Your task to perform on an android device: Open calendar and show me the second week of next month Image 0: 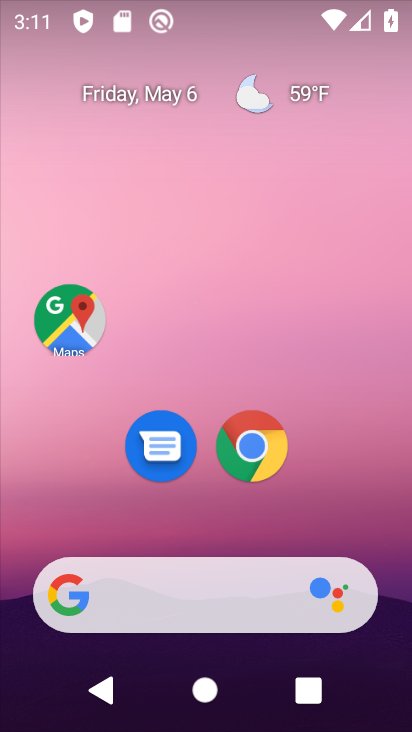
Step 0: drag from (293, 512) to (302, 112)
Your task to perform on an android device: Open calendar and show me the second week of next month Image 1: 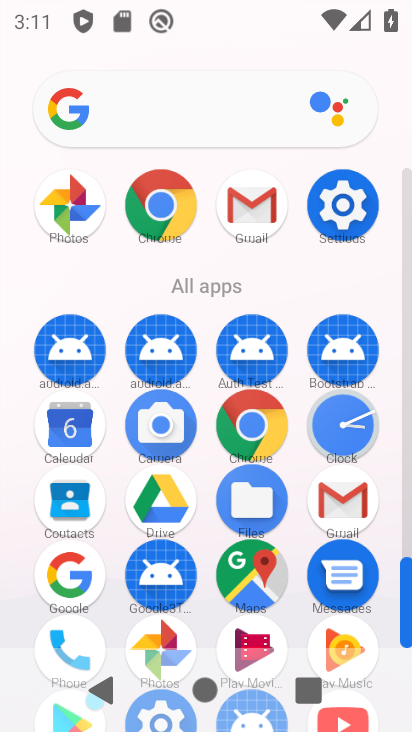
Step 1: click (74, 440)
Your task to perform on an android device: Open calendar and show me the second week of next month Image 2: 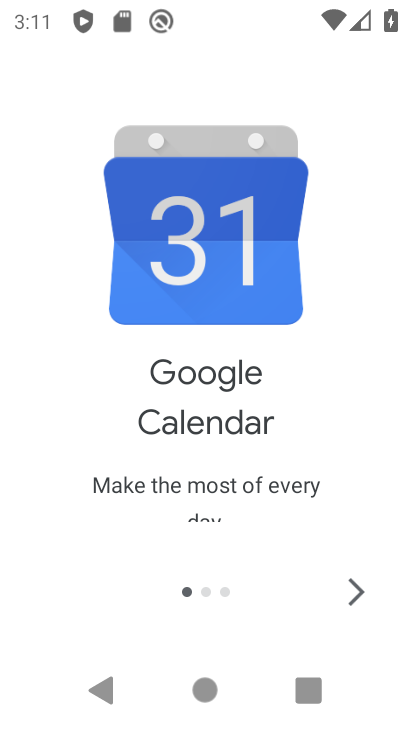
Step 2: click (346, 598)
Your task to perform on an android device: Open calendar and show me the second week of next month Image 3: 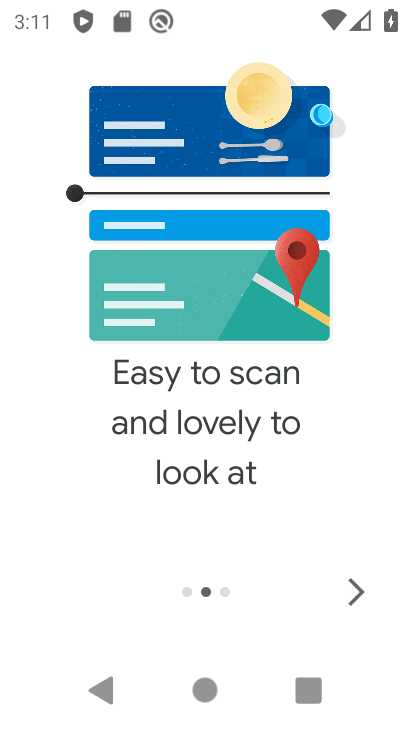
Step 3: click (346, 598)
Your task to perform on an android device: Open calendar and show me the second week of next month Image 4: 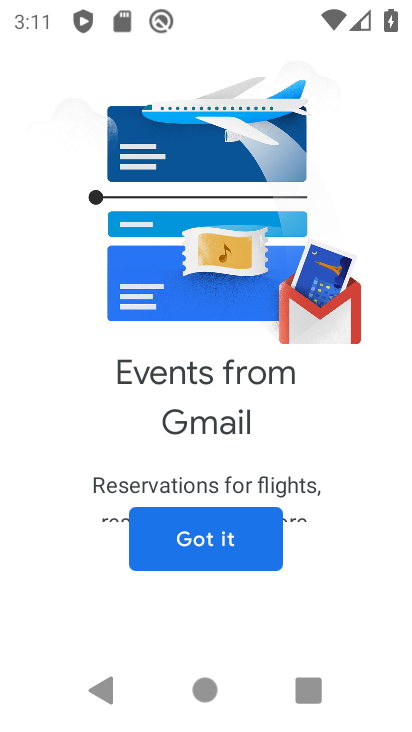
Step 4: click (244, 547)
Your task to perform on an android device: Open calendar and show me the second week of next month Image 5: 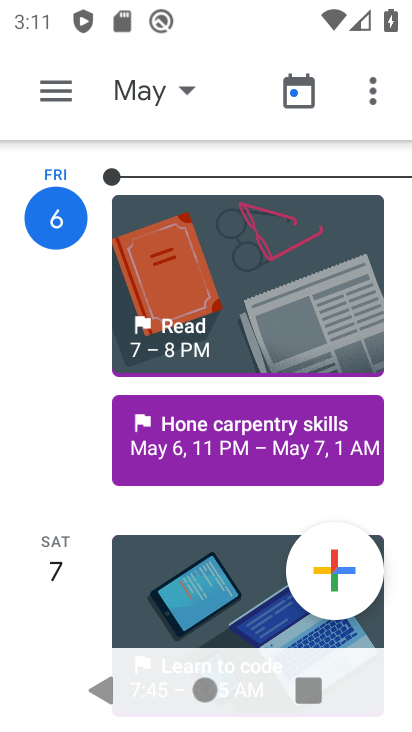
Step 5: click (136, 93)
Your task to perform on an android device: Open calendar and show me the second week of next month Image 6: 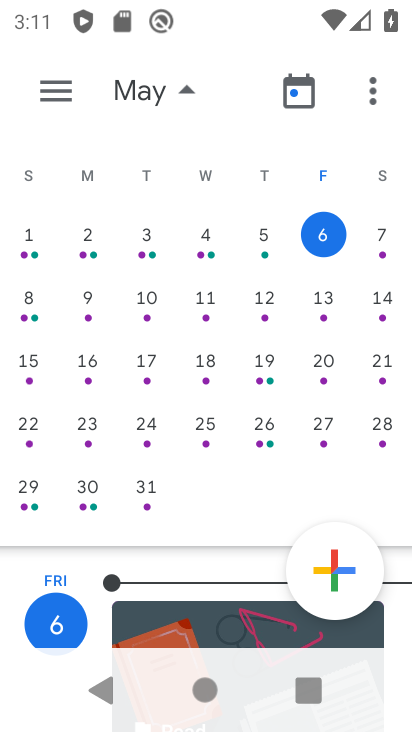
Step 6: drag from (352, 325) to (1, 335)
Your task to perform on an android device: Open calendar and show me the second week of next month Image 7: 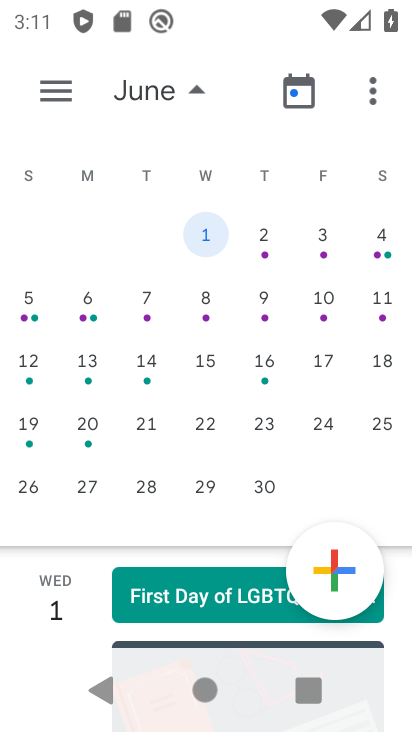
Step 7: click (30, 313)
Your task to perform on an android device: Open calendar and show me the second week of next month Image 8: 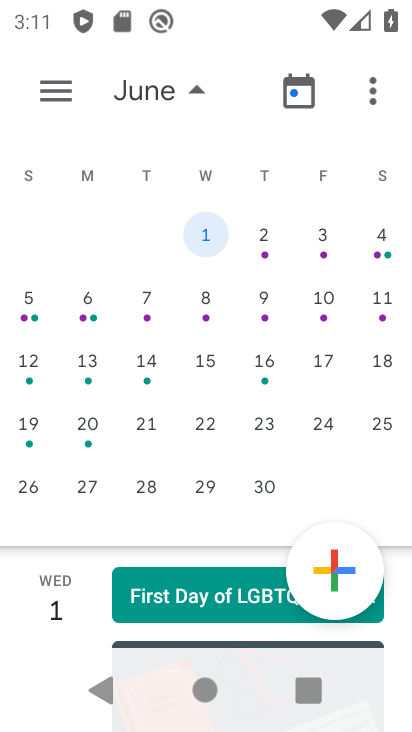
Step 8: click (35, 318)
Your task to perform on an android device: Open calendar and show me the second week of next month Image 9: 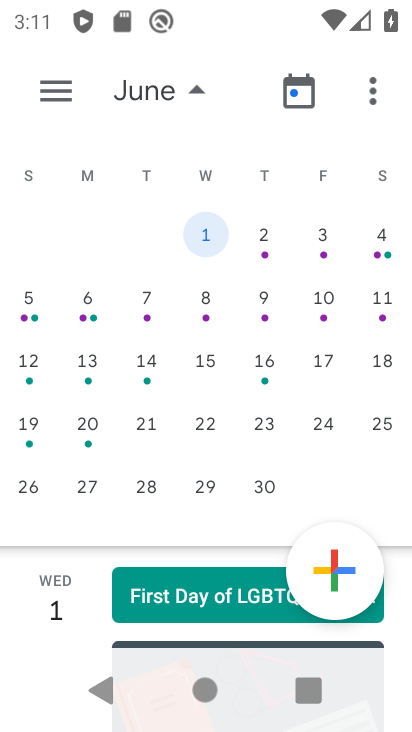
Step 9: click (78, 319)
Your task to perform on an android device: Open calendar and show me the second week of next month Image 10: 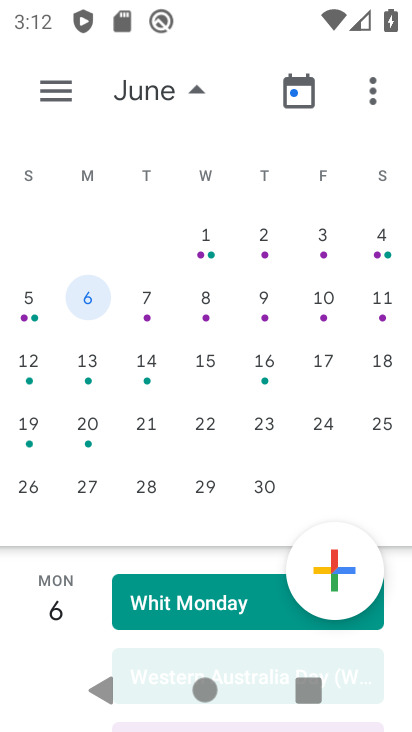
Step 10: click (145, 319)
Your task to perform on an android device: Open calendar and show me the second week of next month Image 11: 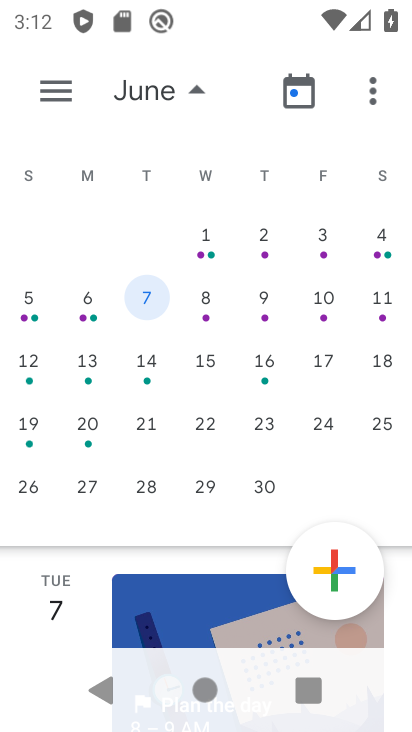
Step 11: click (196, 312)
Your task to perform on an android device: Open calendar and show me the second week of next month Image 12: 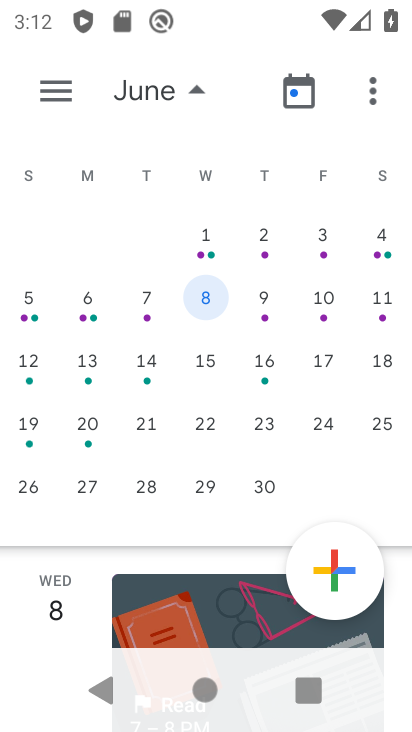
Step 12: click (254, 315)
Your task to perform on an android device: Open calendar and show me the second week of next month Image 13: 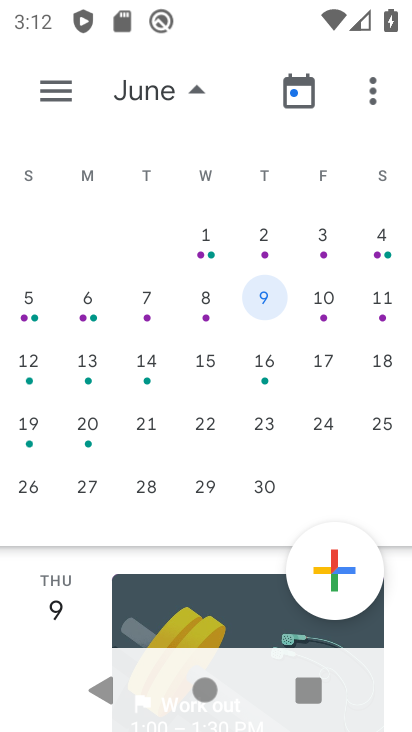
Step 13: click (324, 323)
Your task to perform on an android device: Open calendar and show me the second week of next month Image 14: 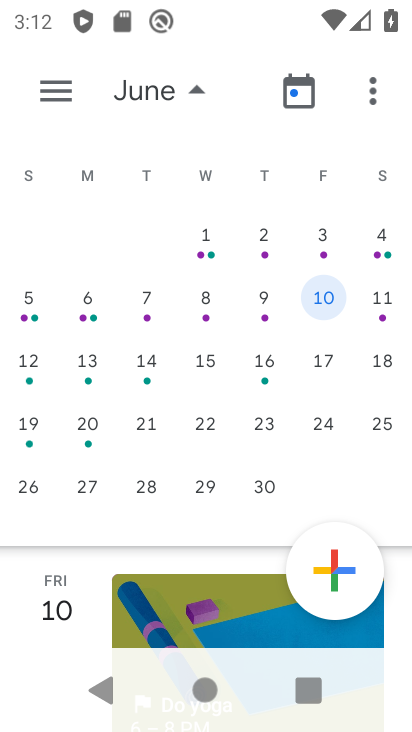
Step 14: click (383, 321)
Your task to perform on an android device: Open calendar and show me the second week of next month Image 15: 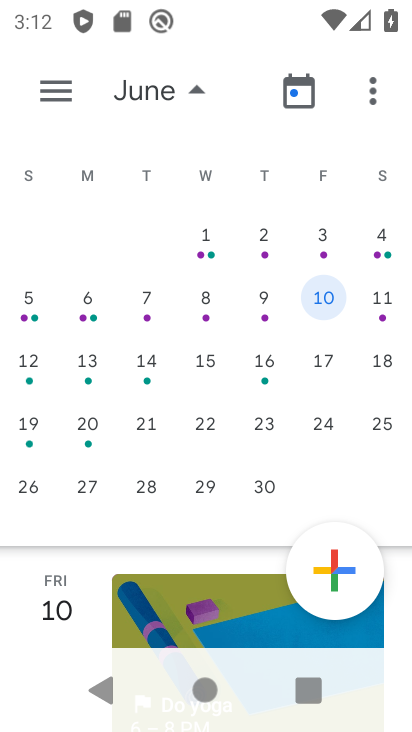
Step 15: click (377, 307)
Your task to perform on an android device: Open calendar and show me the second week of next month Image 16: 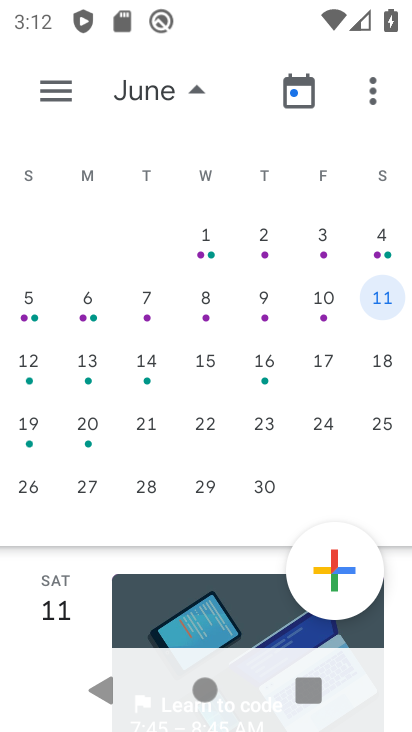
Step 16: task complete